Your task to perform on an android device: Go to eBay Image 0: 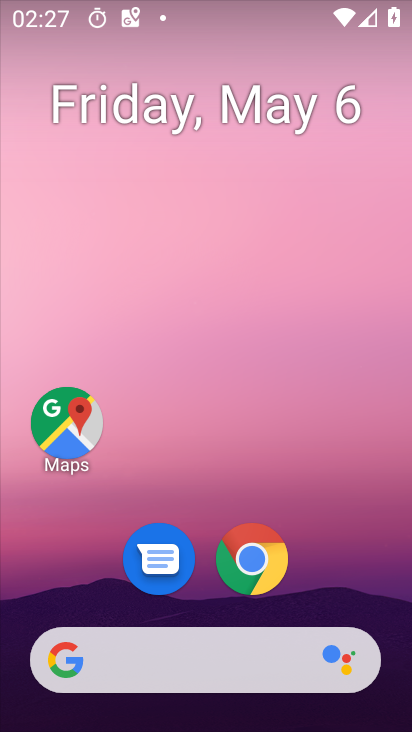
Step 0: drag from (274, 632) to (203, 58)
Your task to perform on an android device: Go to eBay Image 1: 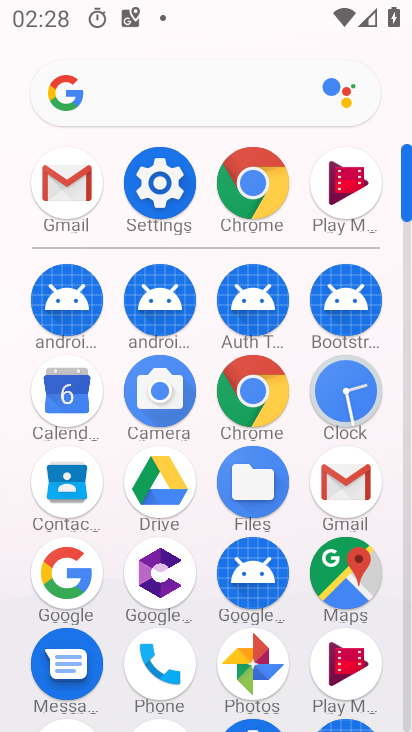
Step 1: click (253, 411)
Your task to perform on an android device: Go to eBay Image 2: 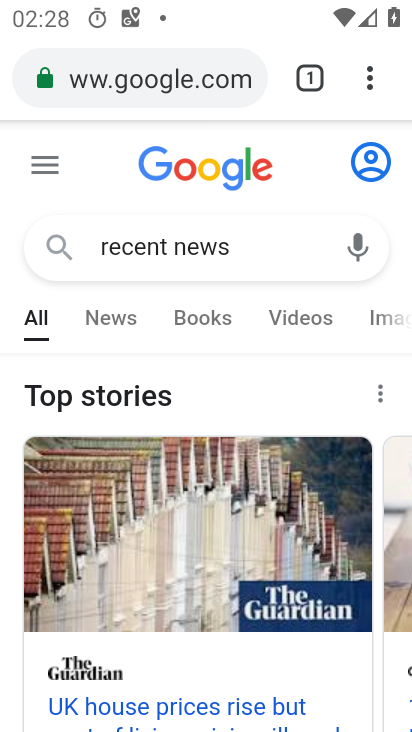
Step 2: click (251, 77)
Your task to perform on an android device: Go to eBay Image 3: 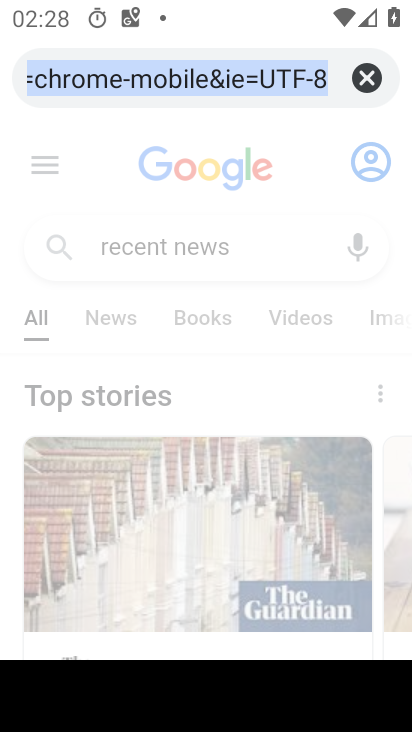
Step 3: click (365, 77)
Your task to perform on an android device: Go to eBay Image 4: 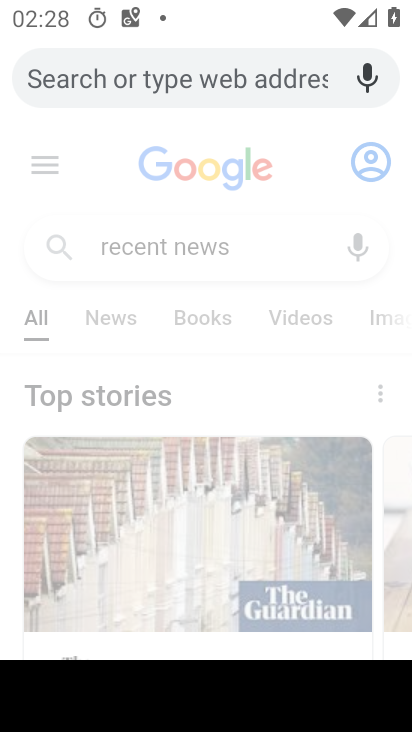
Step 4: type "ebay'"
Your task to perform on an android device: Go to eBay Image 5: 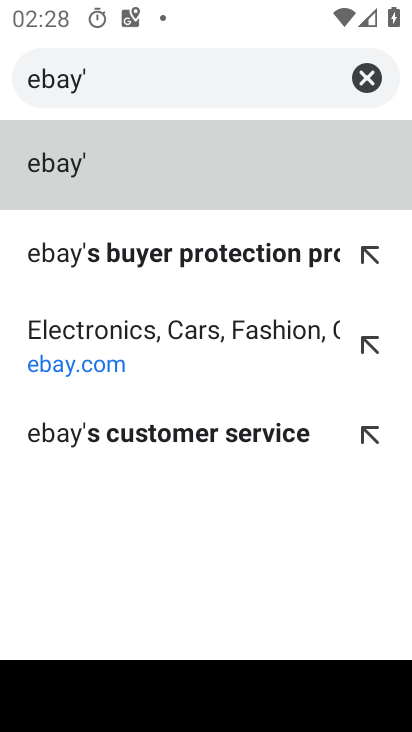
Step 5: type "'"
Your task to perform on an android device: Go to eBay Image 6: 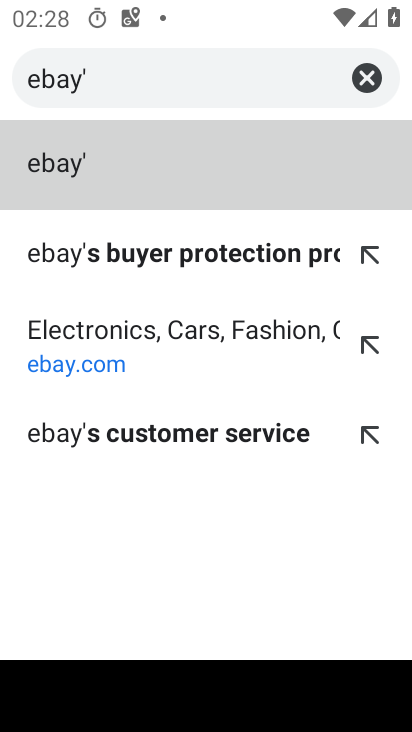
Step 6: click (94, 182)
Your task to perform on an android device: Go to eBay Image 7: 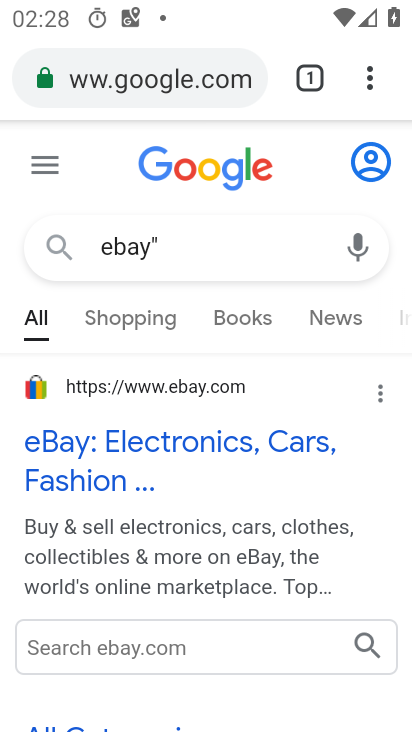
Step 7: task complete